Your task to perform on an android device: Add razer kraken to the cart on costco, then select checkout. Image 0: 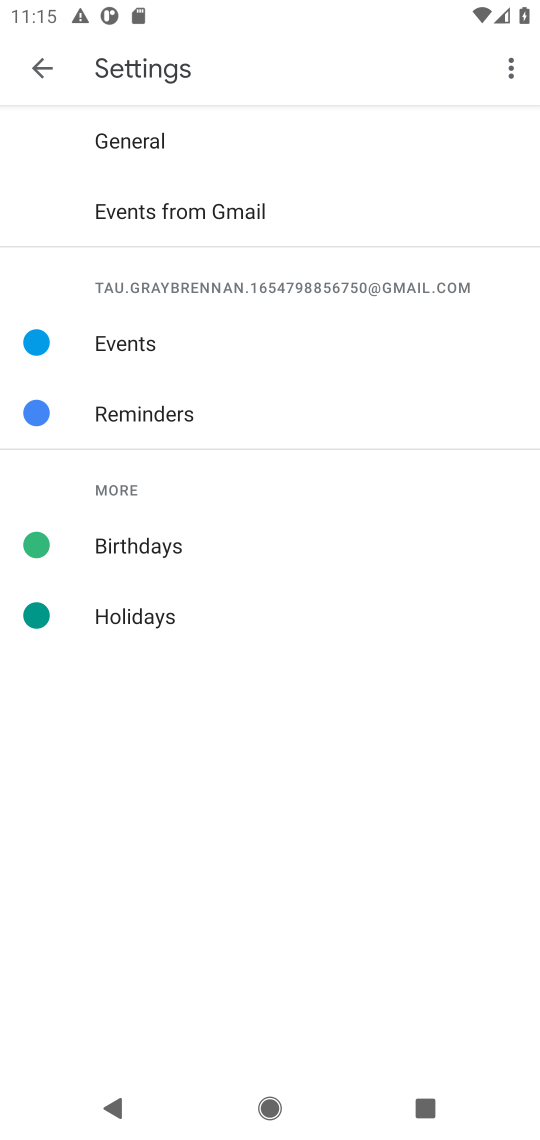
Step 0: press home button
Your task to perform on an android device: Add razer kraken to the cart on costco, then select checkout. Image 1: 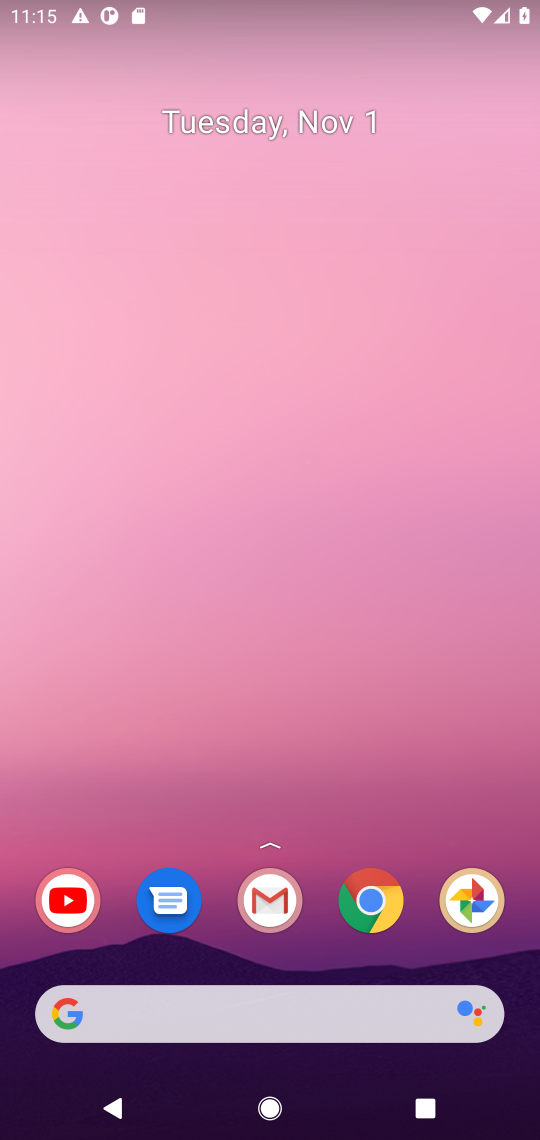
Step 1: click (375, 928)
Your task to perform on an android device: Add razer kraken to the cart on costco, then select checkout. Image 2: 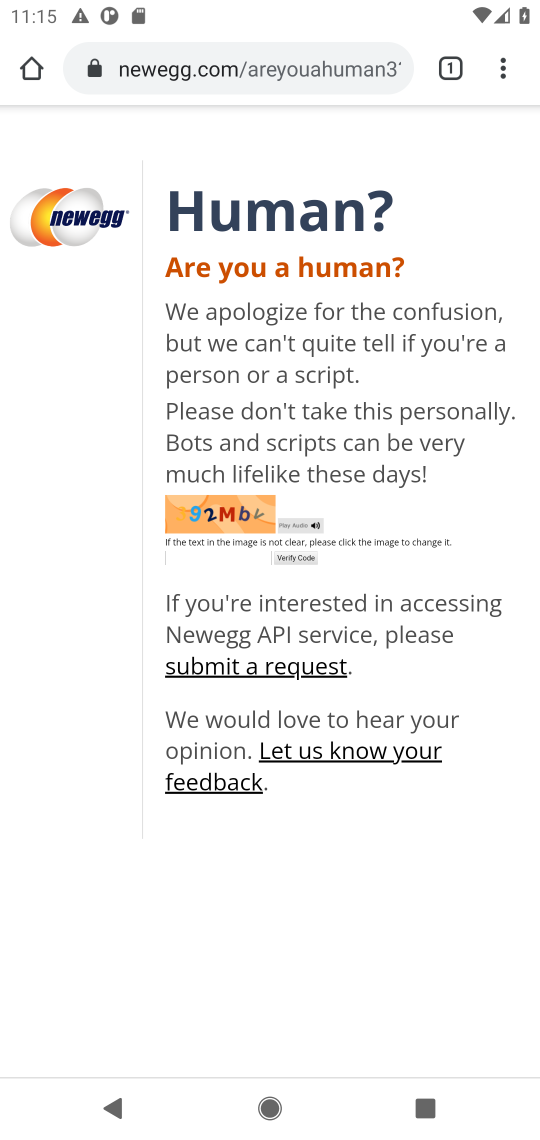
Step 2: click (183, 74)
Your task to perform on an android device: Add razer kraken to the cart on costco, then select checkout. Image 3: 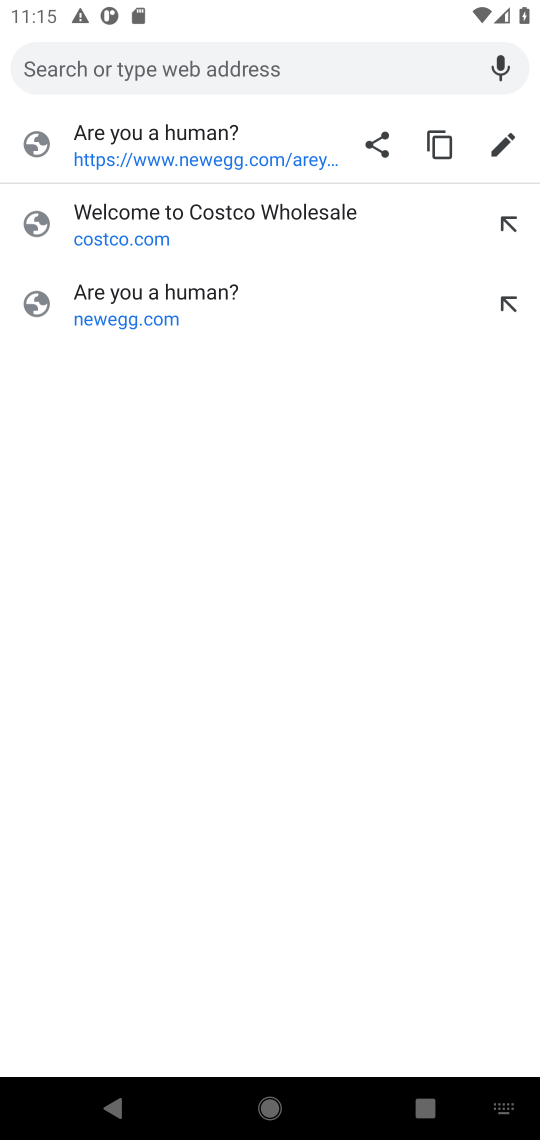
Step 3: click (129, 216)
Your task to perform on an android device: Add razer kraken to the cart on costco, then select checkout. Image 4: 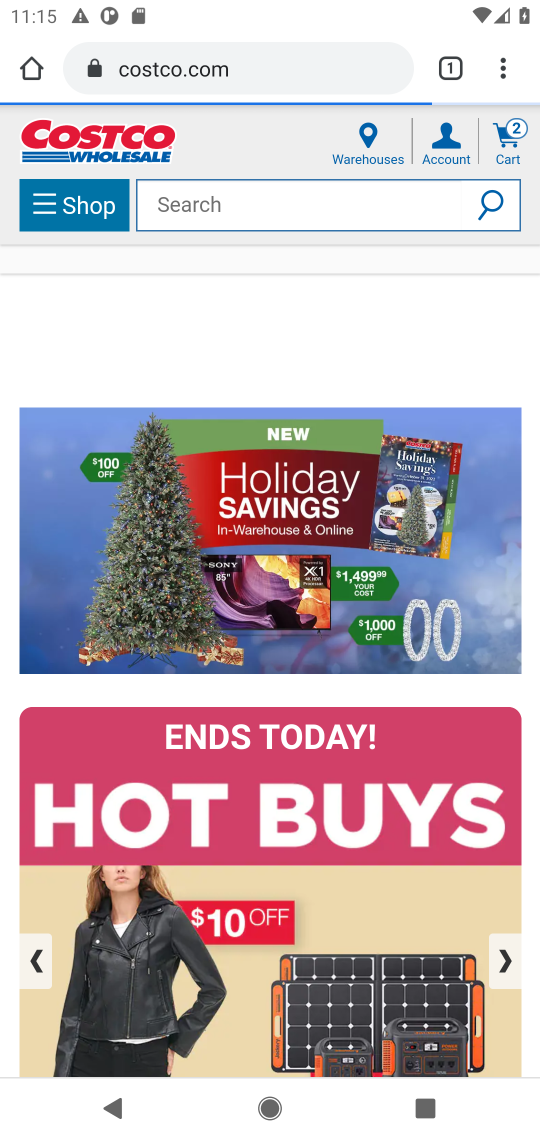
Step 4: click (178, 207)
Your task to perform on an android device: Add razer kraken to the cart on costco, then select checkout. Image 5: 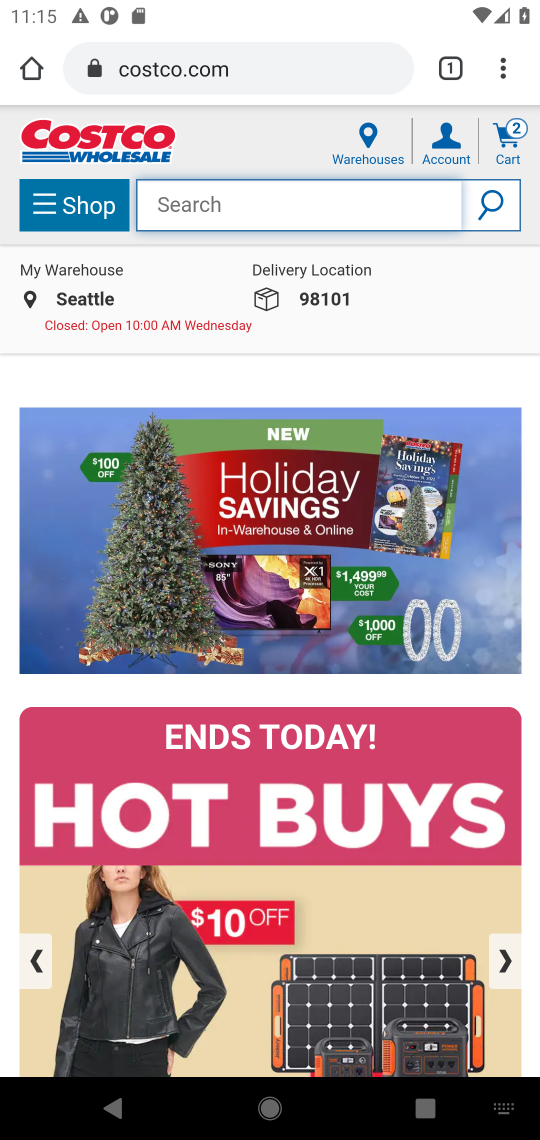
Step 5: type "razer kraken"
Your task to perform on an android device: Add razer kraken to the cart on costco, then select checkout. Image 6: 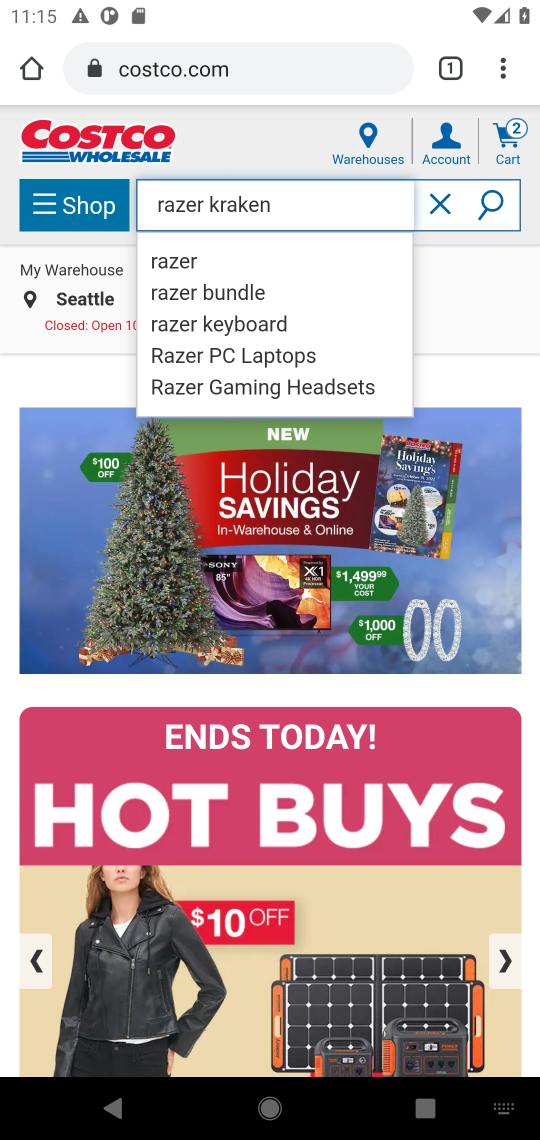
Step 6: click (485, 200)
Your task to perform on an android device: Add razer kraken to the cart on costco, then select checkout. Image 7: 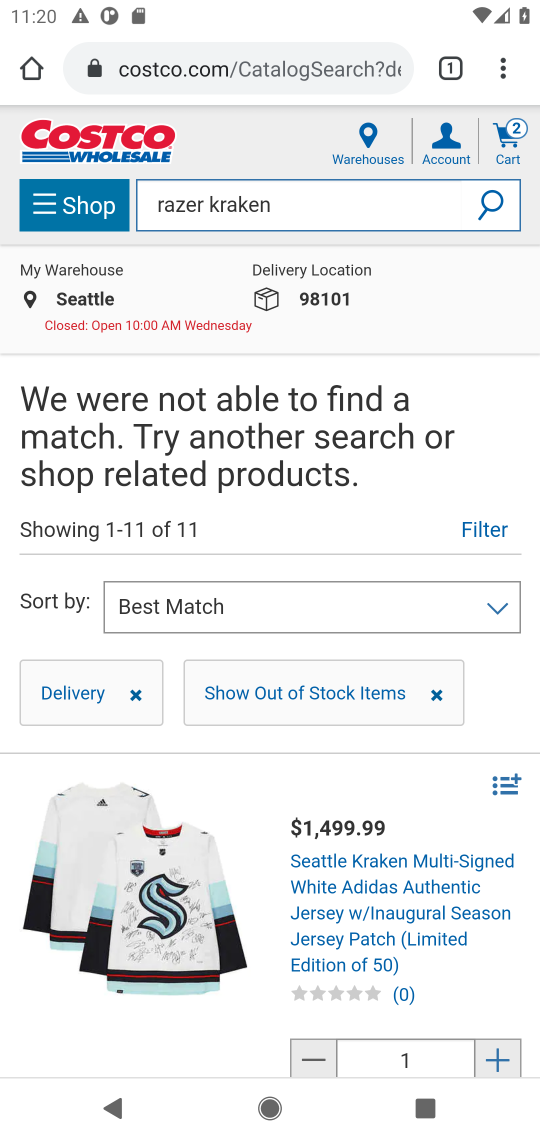
Step 7: task complete